Your task to perform on an android device: Go to accessibility settings Image 0: 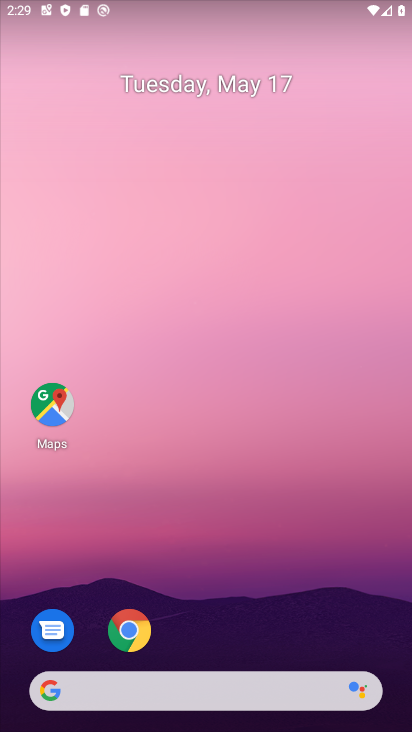
Step 0: drag from (156, 664) to (283, 186)
Your task to perform on an android device: Go to accessibility settings Image 1: 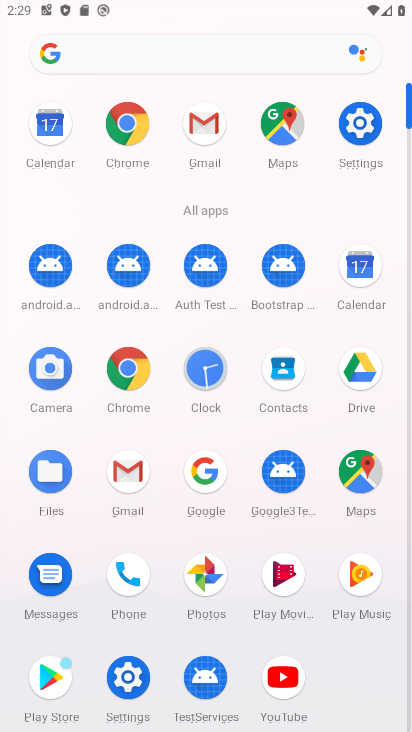
Step 1: click (341, 130)
Your task to perform on an android device: Go to accessibility settings Image 2: 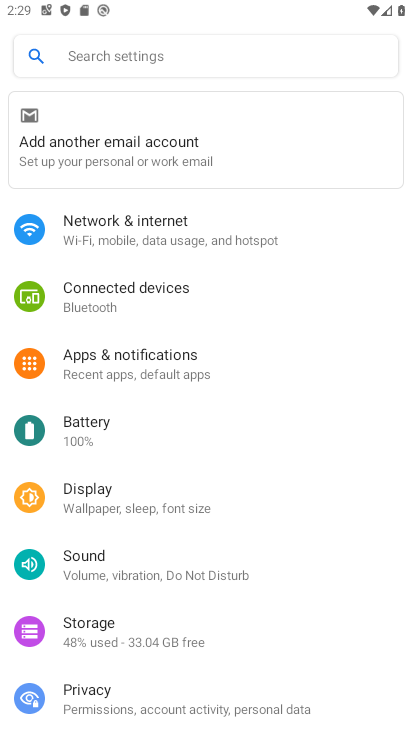
Step 2: drag from (99, 711) to (231, 231)
Your task to perform on an android device: Go to accessibility settings Image 3: 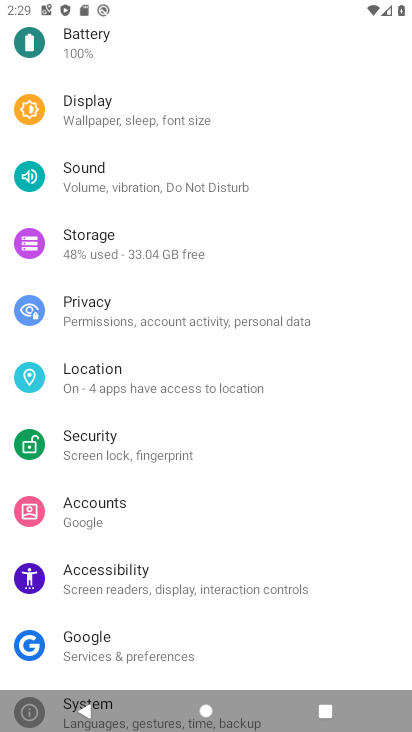
Step 3: click (128, 596)
Your task to perform on an android device: Go to accessibility settings Image 4: 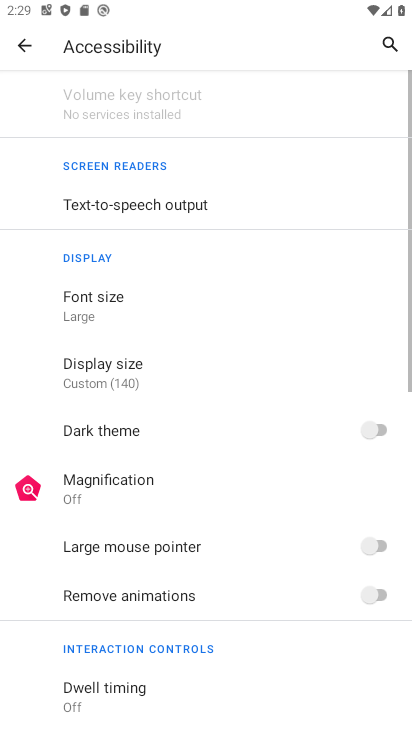
Step 4: task complete